Your task to perform on an android device: change keyboard looks Image 0: 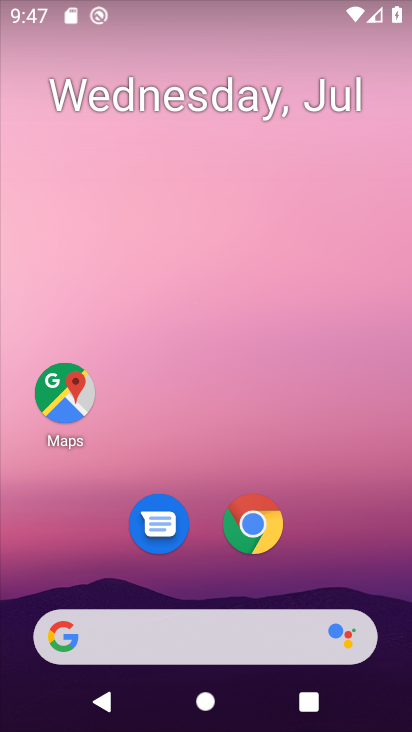
Step 0: drag from (322, 554) to (368, 60)
Your task to perform on an android device: change keyboard looks Image 1: 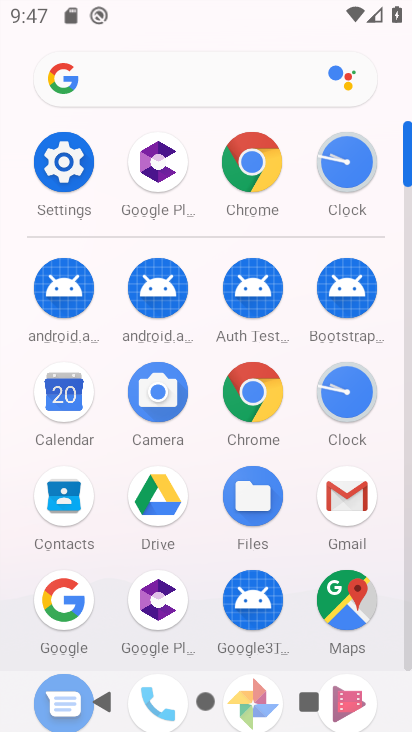
Step 1: click (61, 152)
Your task to perform on an android device: change keyboard looks Image 2: 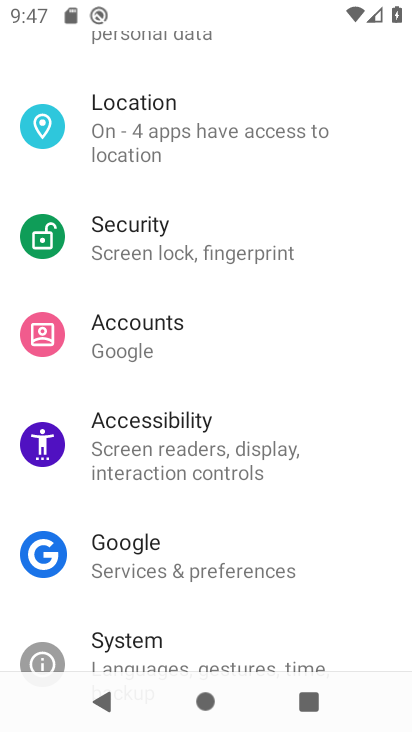
Step 2: drag from (202, 504) to (197, 356)
Your task to perform on an android device: change keyboard looks Image 3: 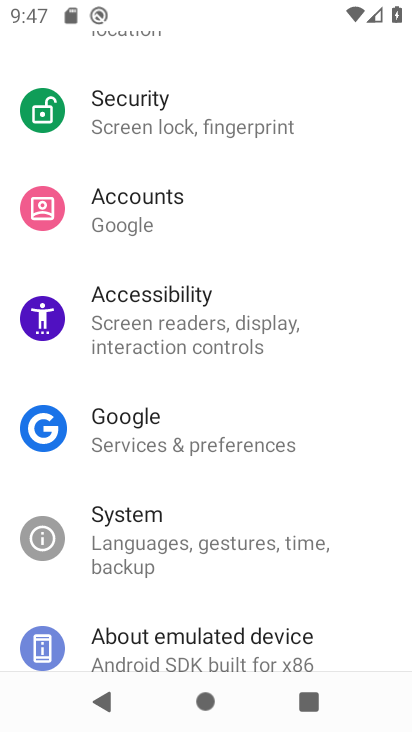
Step 3: click (182, 530)
Your task to perform on an android device: change keyboard looks Image 4: 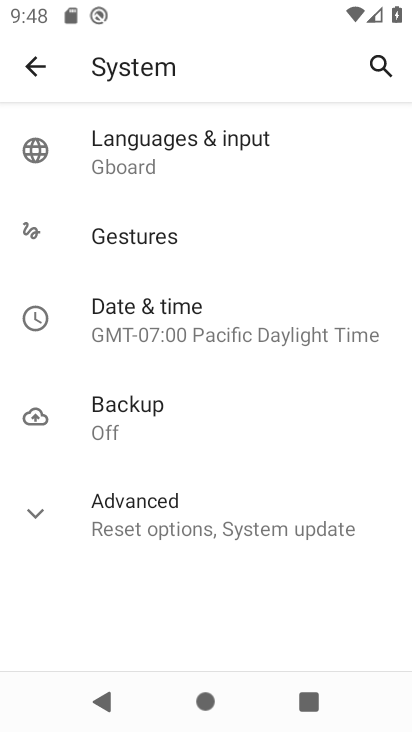
Step 4: click (188, 145)
Your task to perform on an android device: change keyboard looks Image 5: 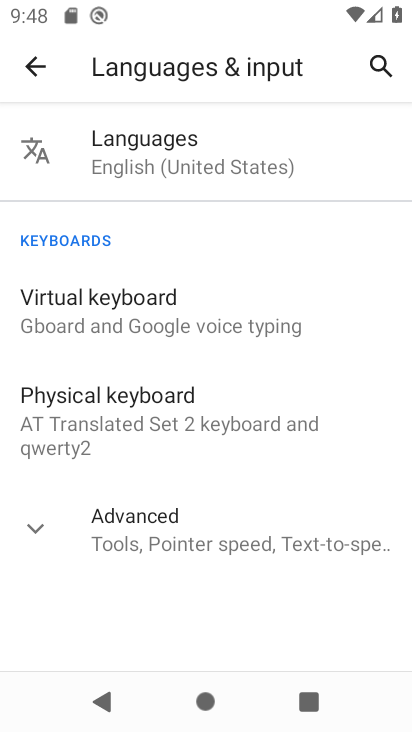
Step 5: click (139, 303)
Your task to perform on an android device: change keyboard looks Image 6: 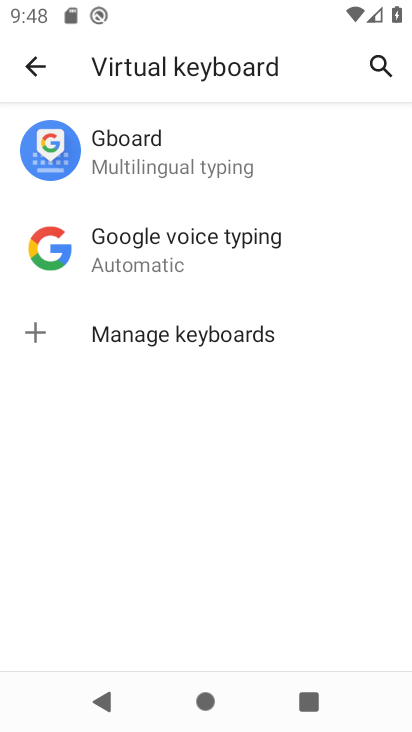
Step 6: click (162, 152)
Your task to perform on an android device: change keyboard looks Image 7: 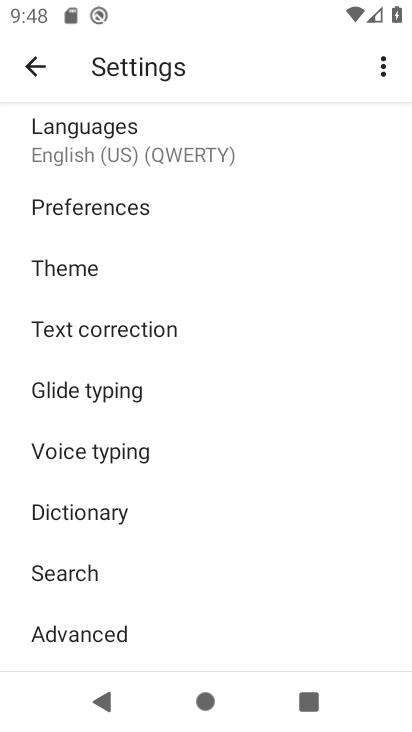
Step 7: click (81, 279)
Your task to perform on an android device: change keyboard looks Image 8: 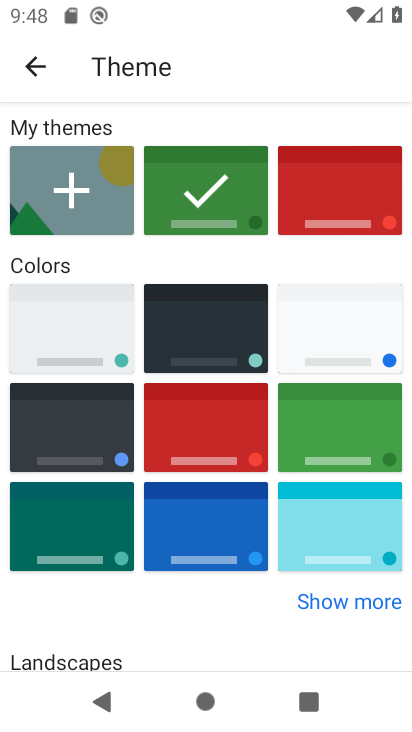
Step 8: click (180, 328)
Your task to perform on an android device: change keyboard looks Image 9: 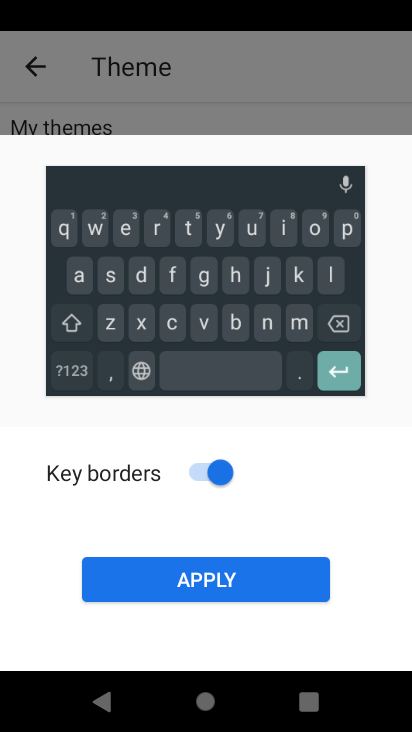
Step 9: click (291, 569)
Your task to perform on an android device: change keyboard looks Image 10: 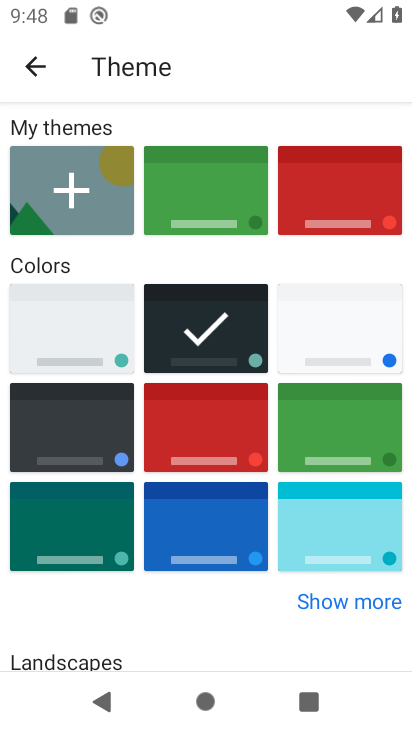
Step 10: task complete